Your task to perform on an android device: Open Youtube and go to the subscriptions tab Image 0: 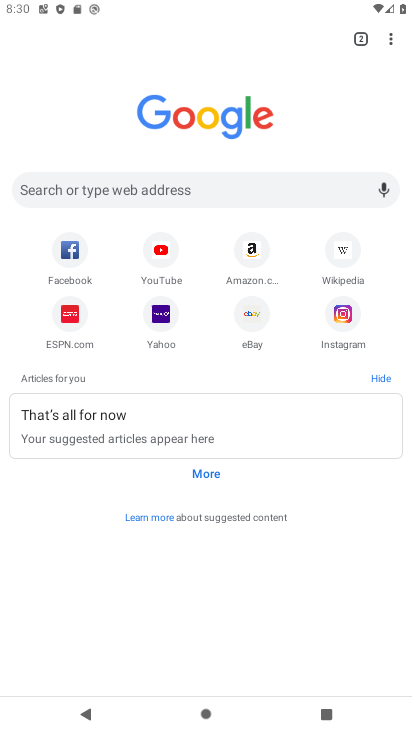
Step 0: press home button
Your task to perform on an android device: Open Youtube and go to the subscriptions tab Image 1: 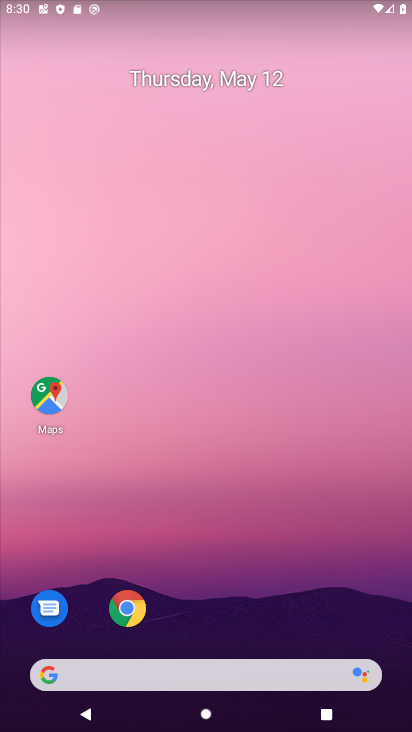
Step 1: drag from (185, 615) to (234, 152)
Your task to perform on an android device: Open Youtube and go to the subscriptions tab Image 2: 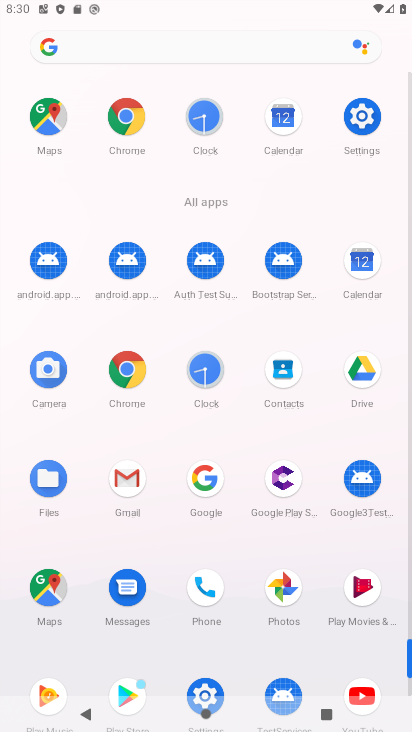
Step 2: click (363, 689)
Your task to perform on an android device: Open Youtube and go to the subscriptions tab Image 3: 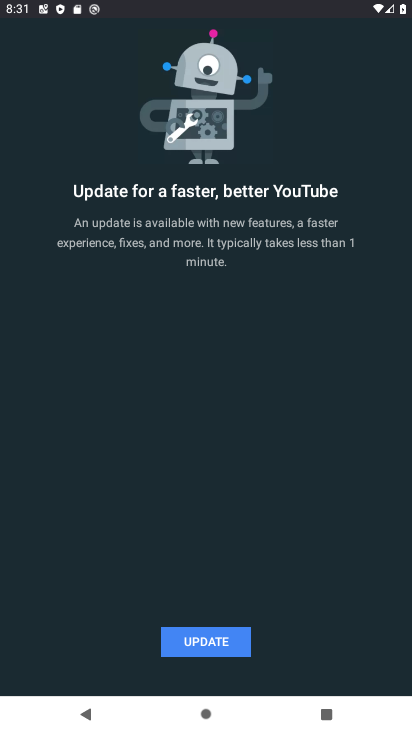
Step 3: click (233, 655)
Your task to perform on an android device: Open Youtube and go to the subscriptions tab Image 4: 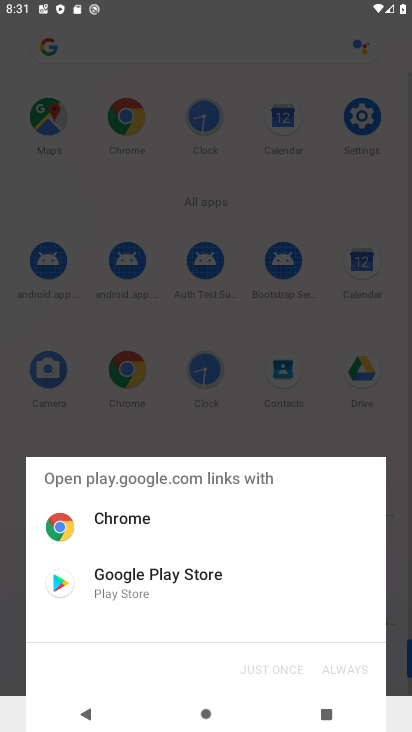
Step 4: click (255, 576)
Your task to perform on an android device: Open Youtube and go to the subscriptions tab Image 5: 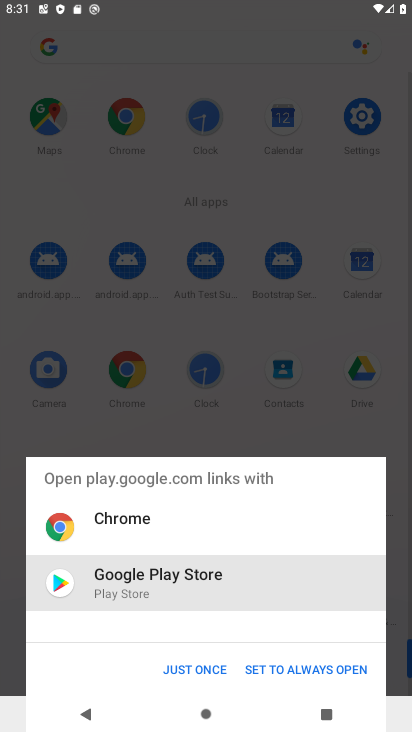
Step 5: click (203, 667)
Your task to perform on an android device: Open Youtube and go to the subscriptions tab Image 6: 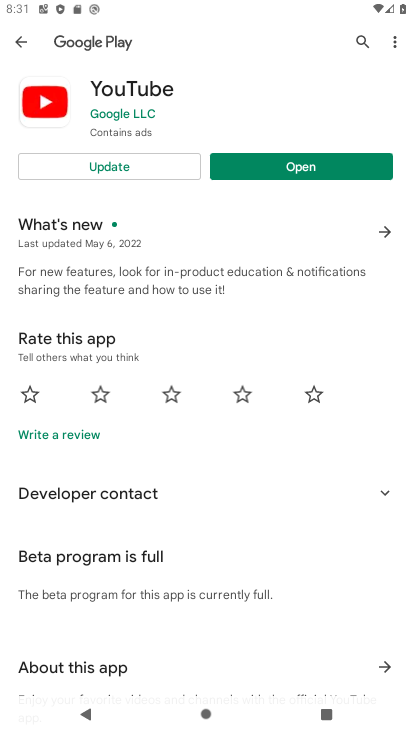
Step 6: click (120, 175)
Your task to perform on an android device: Open Youtube and go to the subscriptions tab Image 7: 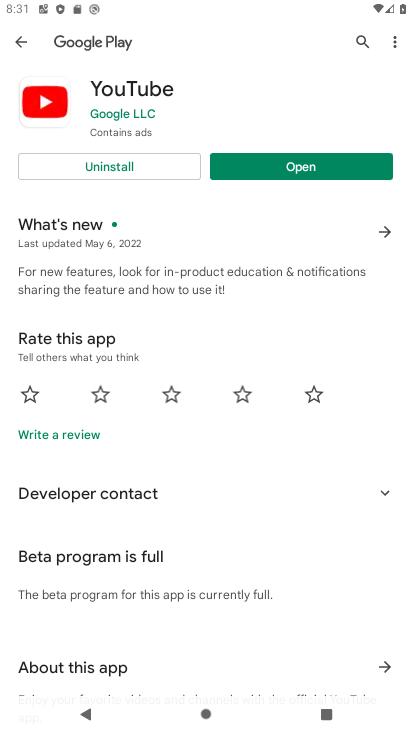
Step 7: click (298, 170)
Your task to perform on an android device: Open Youtube and go to the subscriptions tab Image 8: 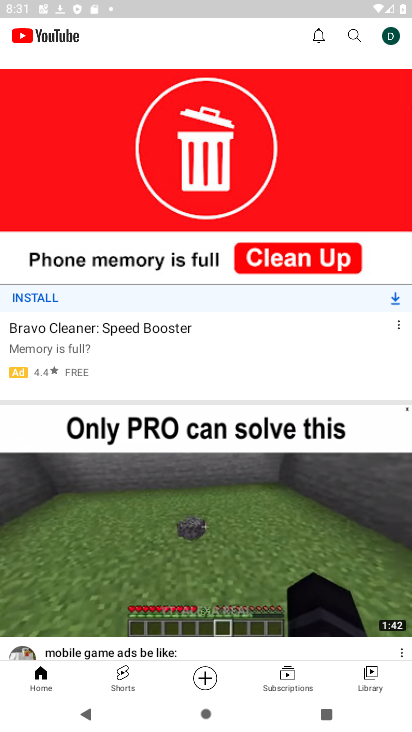
Step 8: click (301, 677)
Your task to perform on an android device: Open Youtube and go to the subscriptions tab Image 9: 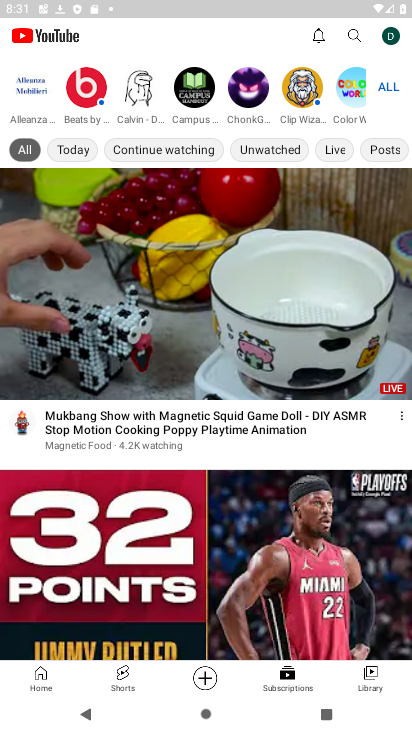
Step 9: task complete